Your task to perform on an android device: turn on improve location accuracy Image 0: 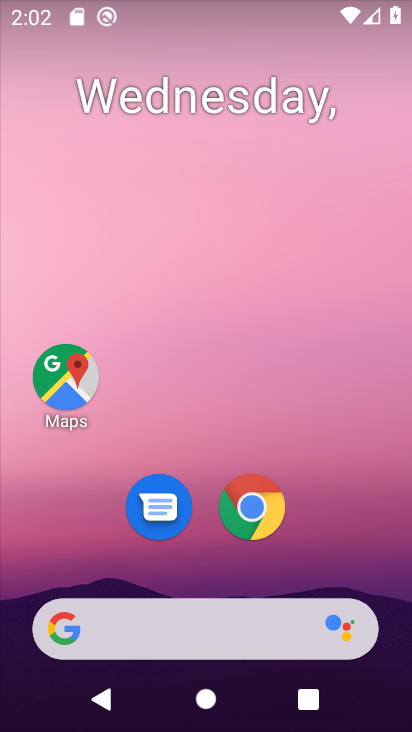
Step 0: drag from (76, 571) to (138, 136)
Your task to perform on an android device: turn on improve location accuracy Image 1: 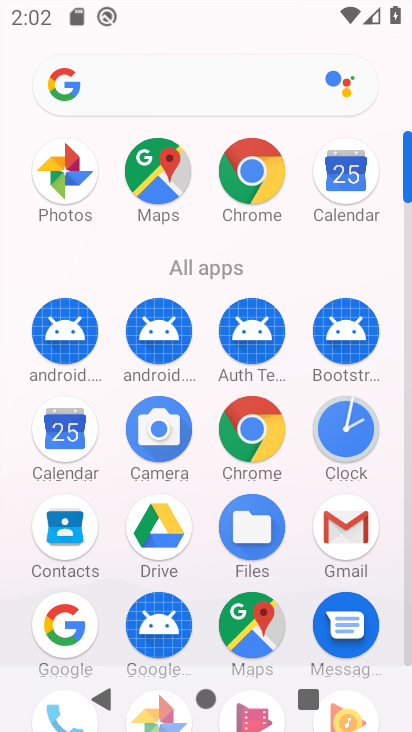
Step 1: drag from (142, 630) to (208, 405)
Your task to perform on an android device: turn on improve location accuracy Image 2: 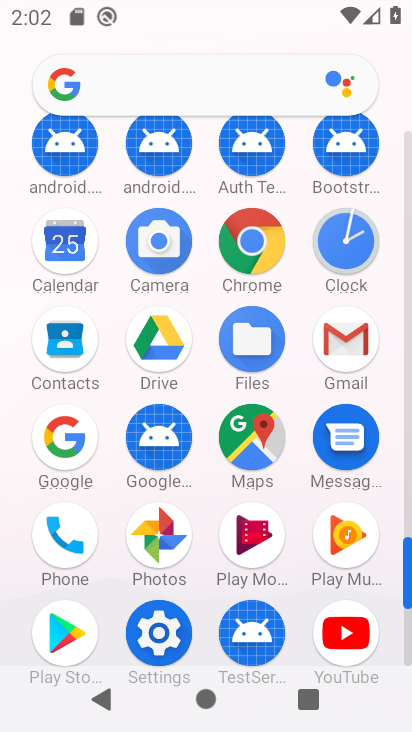
Step 2: click (149, 640)
Your task to perform on an android device: turn on improve location accuracy Image 3: 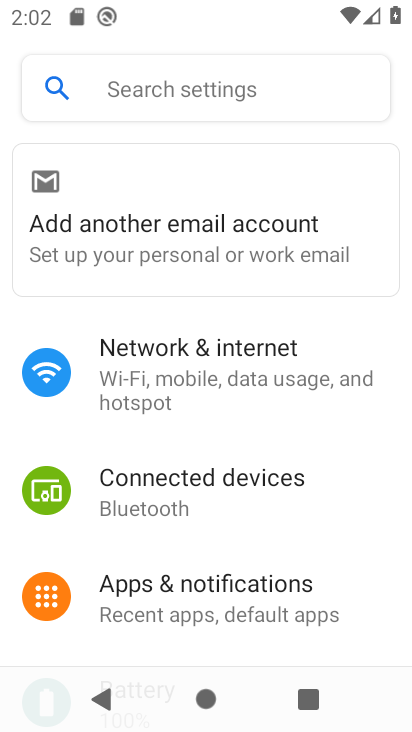
Step 3: drag from (151, 649) to (253, 279)
Your task to perform on an android device: turn on improve location accuracy Image 4: 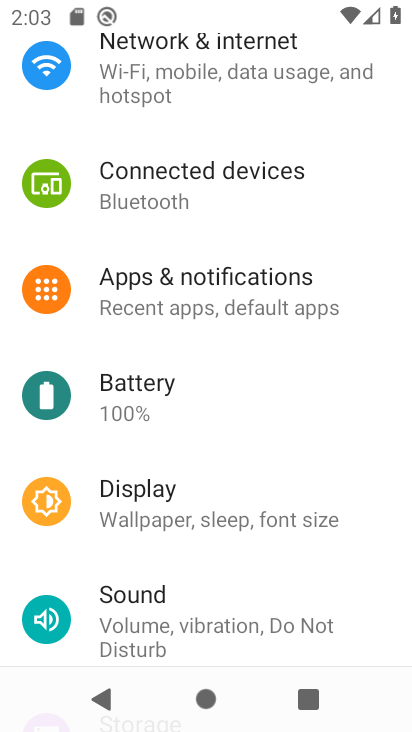
Step 4: drag from (184, 596) to (260, 239)
Your task to perform on an android device: turn on improve location accuracy Image 5: 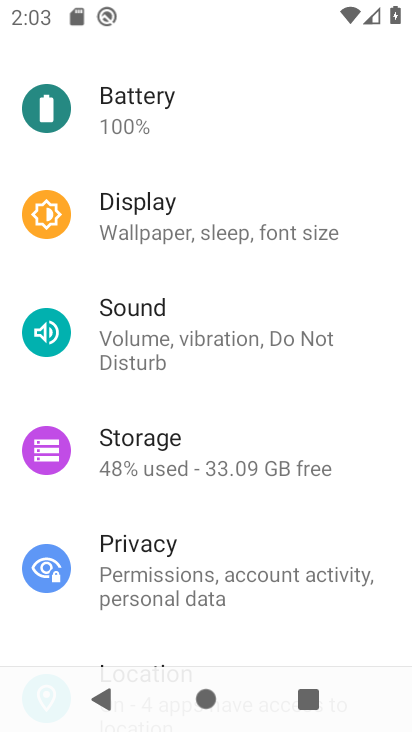
Step 5: drag from (158, 610) to (246, 215)
Your task to perform on an android device: turn on improve location accuracy Image 6: 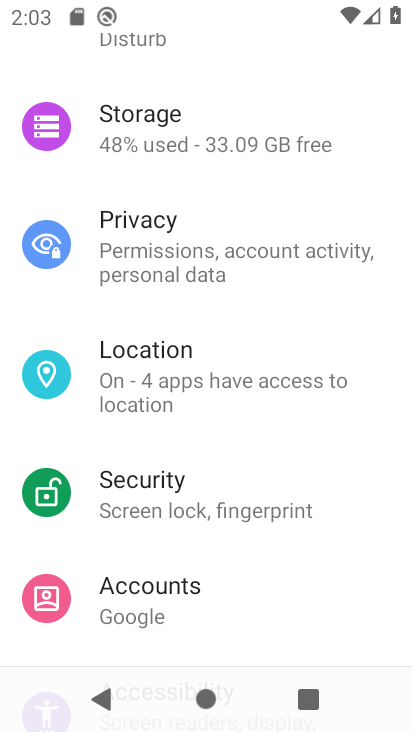
Step 6: drag from (159, 617) to (186, 489)
Your task to perform on an android device: turn on improve location accuracy Image 7: 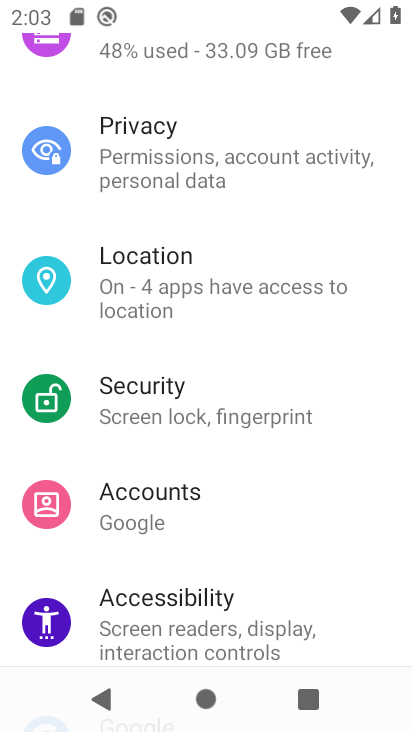
Step 7: click (190, 280)
Your task to perform on an android device: turn on improve location accuracy Image 8: 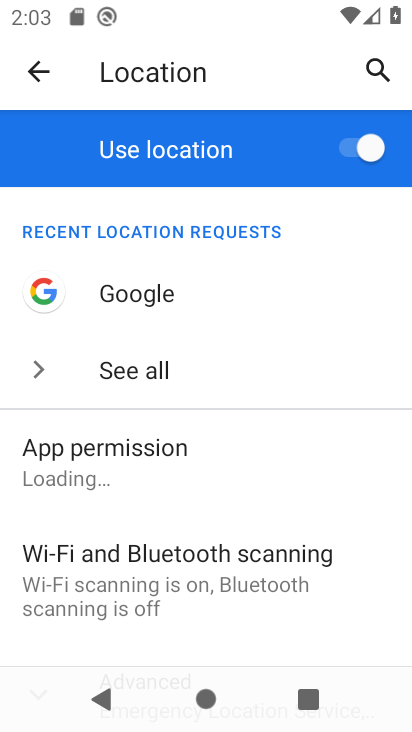
Step 8: drag from (136, 646) to (200, 397)
Your task to perform on an android device: turn on improve location accuracy Image 9: 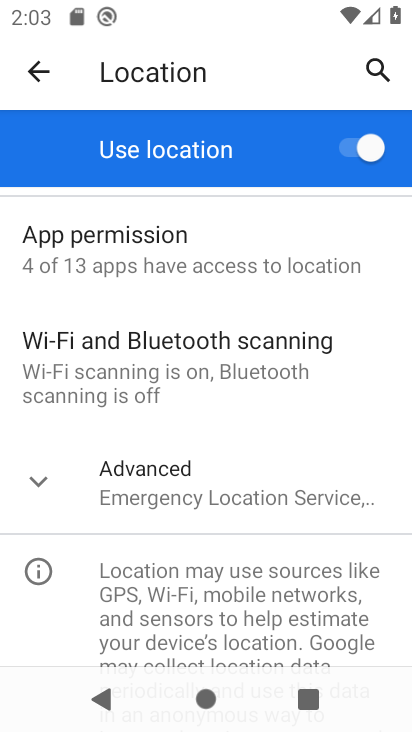
Step 9: click (165, 478)
Your task to perform on an android device: turn on improve location accuracy Image 10: 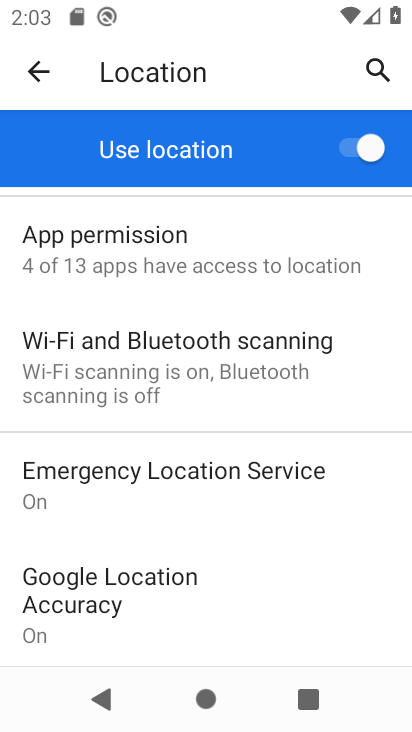
Step 10: drag from (144, 603) to (219, 340)
Your task to perform on an android device: turn on improve location accuracy Image 11: 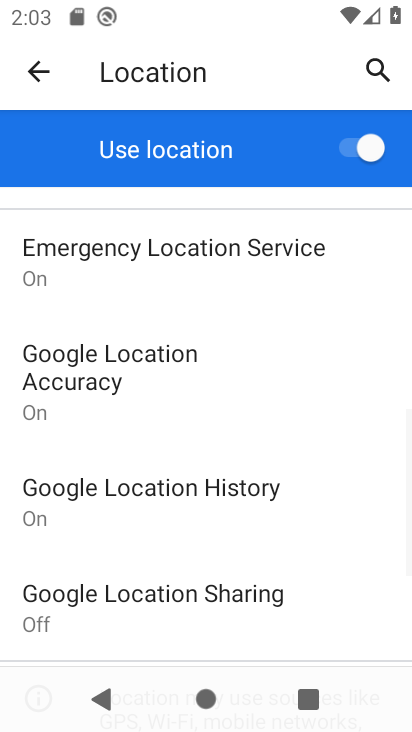
Step 11: click (199, 388)
Your task to perform on an android device: turn on improve location accuracy Image 12: 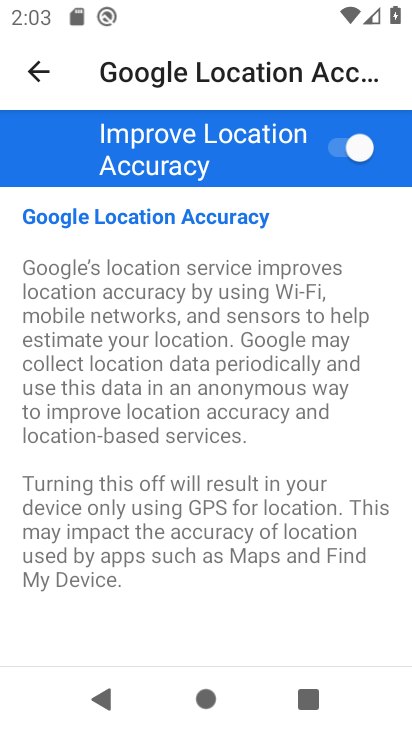
Step 12: task complete